Your task to perform on an android device: Open Google Chrome Image 0: 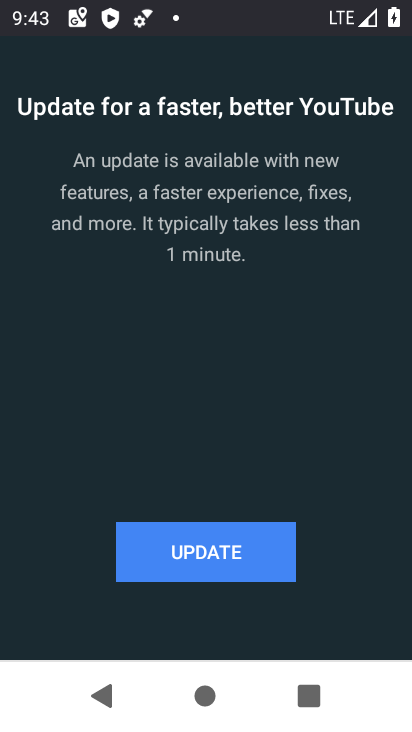
Step 0: press back button
Your task to perform on an android device: Open Google Chrome Image 1: 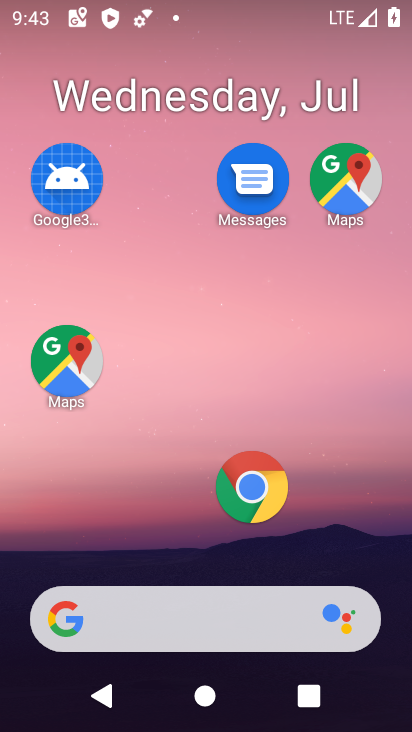
Step 1: click (260, 508)
Your task to perform on an android device: Open Google Chrome Image 2: 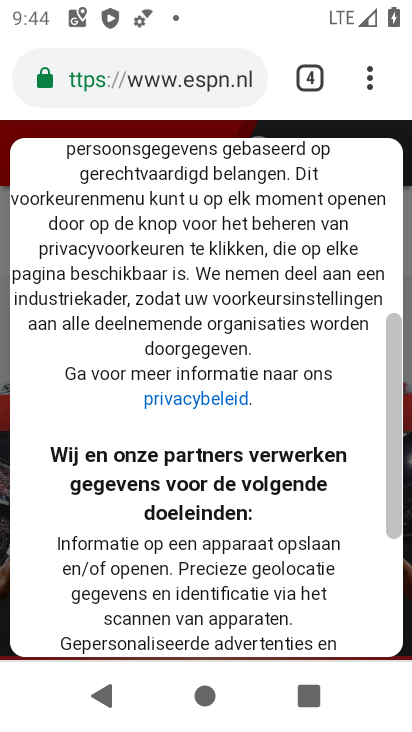
Step 2: click (301, 75)
Your task to perform on an android device: Open Google Chrome Image 3: 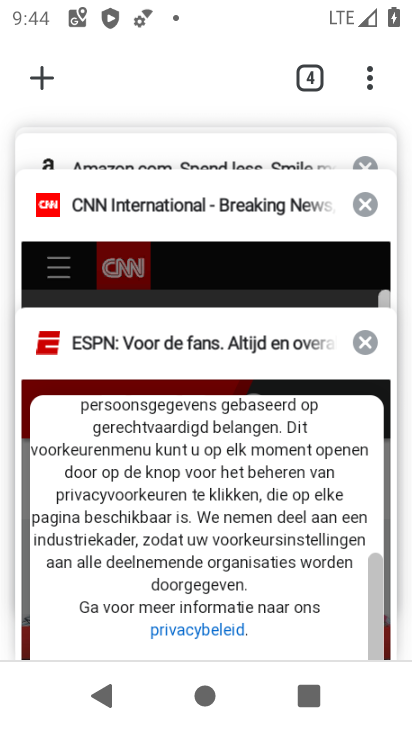
Step 3: click (31, 89)
Your task to perform on an android device: Open Google Chrome Image 4: 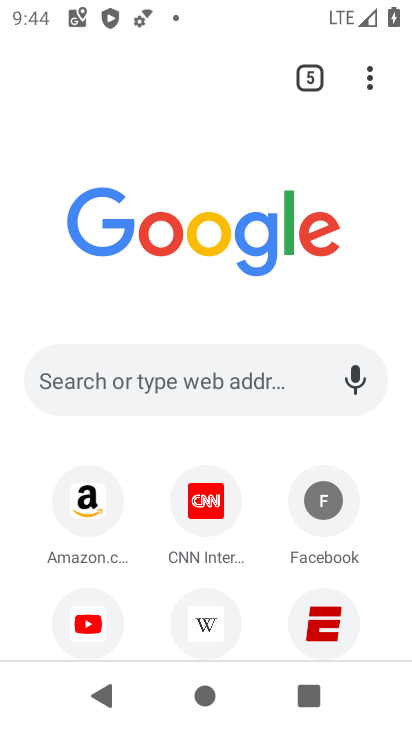
Step 4: task complete